Your task to perform on an android device: move an email to a new category in the gmail app Image 0: 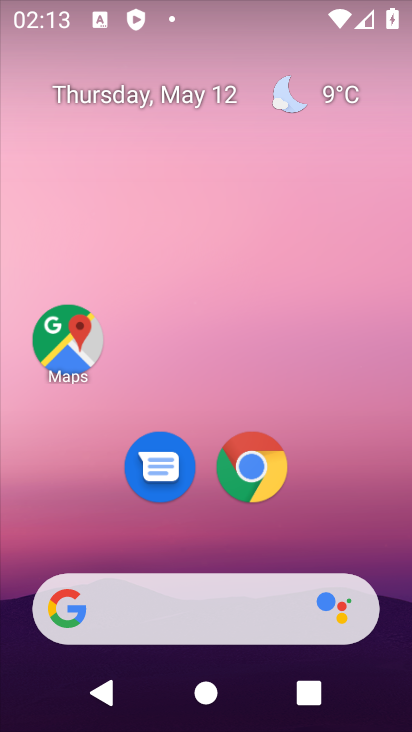
Step 0: drag from (337, 401) to (337, 184)
Your task to perform on an android device: move an email to a new category in the gmail app Image 1: 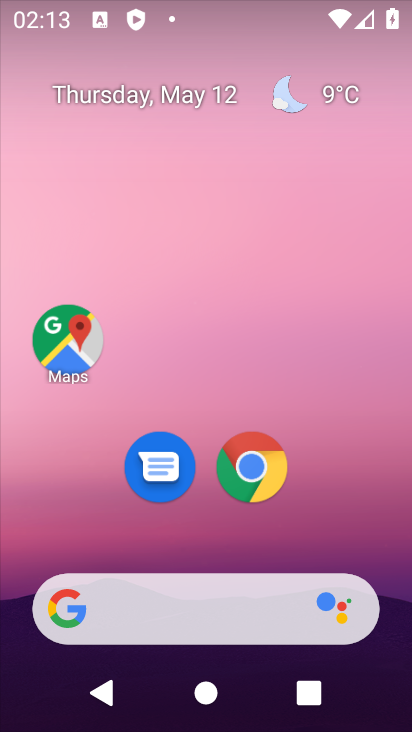
Step 1: drag from (318, 543) to (336, 191)
Your task to perform on an android device: move an email to a new category in the gmail app Image 2: 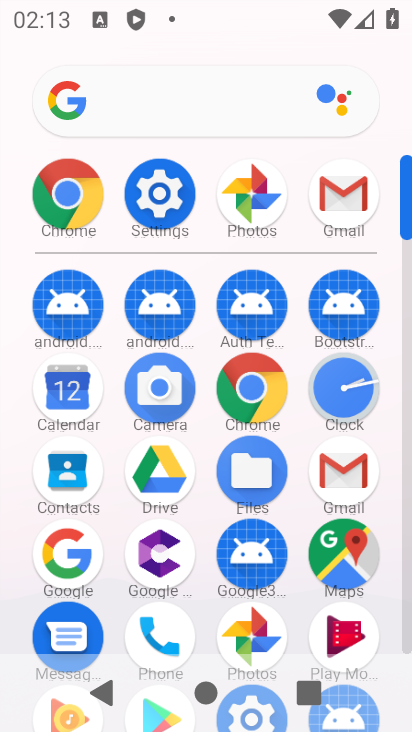
Step 2: click (349, 180)
Your task to perform on an android device: move an email to a new category in the gmail app Image 3: 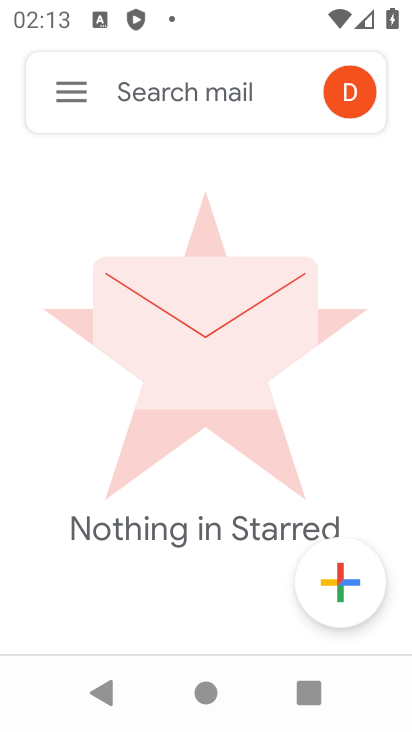
Step 3: click (75, 94)
Your task to perform on an android device: move an email to a new category in the gmail app Image 4: 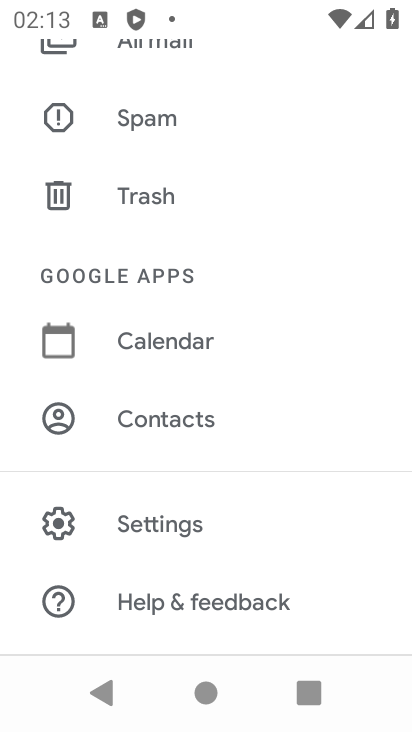
Step 4: drag from (201, 126) to (202, 570)
Your task to perform on an android device: move an email to a new category in the gmail app Image 5: 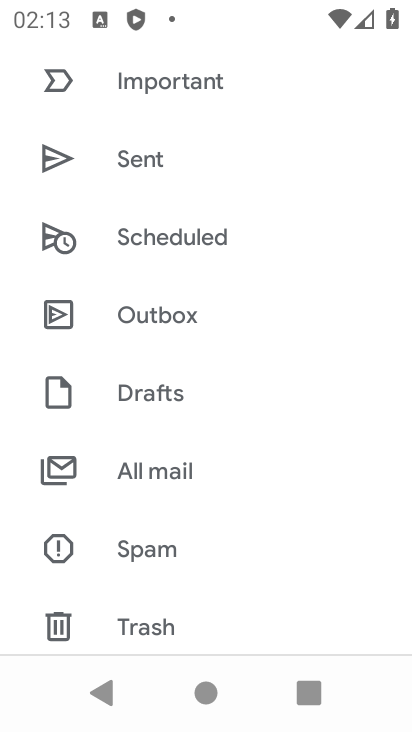
Step 5: click (170, 475)
Your task to perform on an android device: move an email to a new category in the gmail app Image 6: 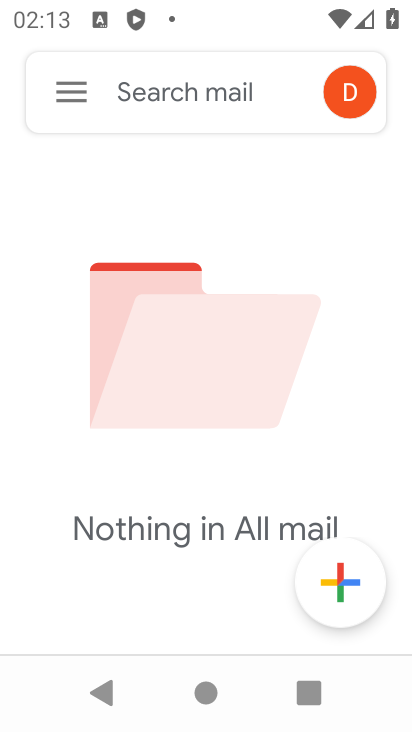
Step 6: task complete